Your task to perform on an android device: open a bookmark in the chrome app Image 0: 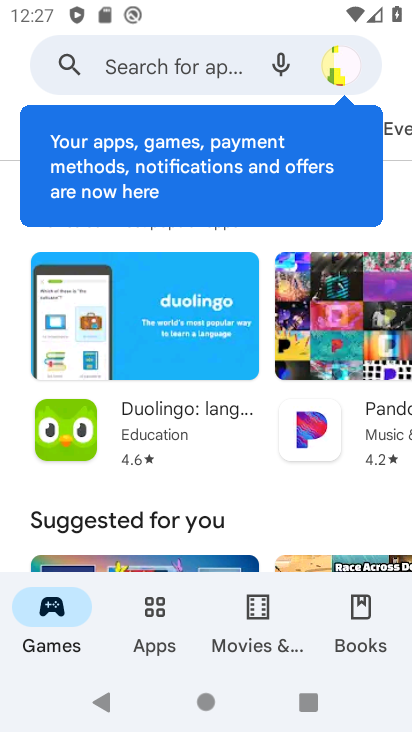
Step 0: press home button
Your task to perform on an android device: open a bookmark in the chrome app Image 1: 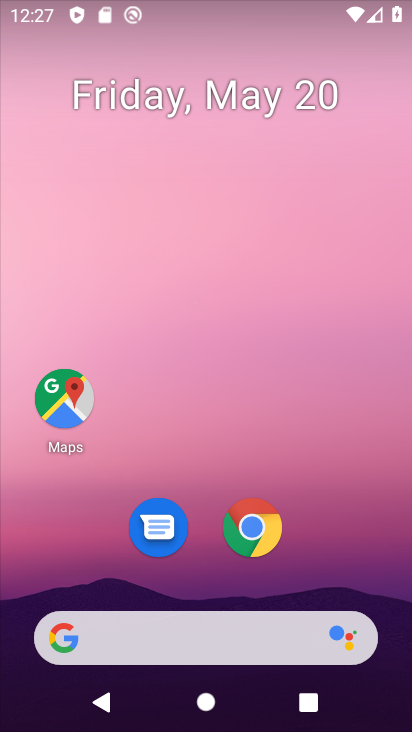
Step 1: click (247, 547)
Your task to perform on an android device: open a bookmark in the chrome app Image 2: 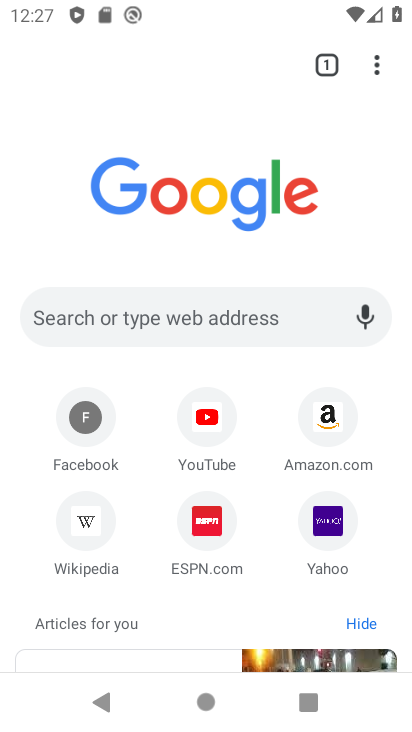
Step 2: click (379, 61)
Your task to perform on an android device: open a bookmark in the chrome app Image 3: 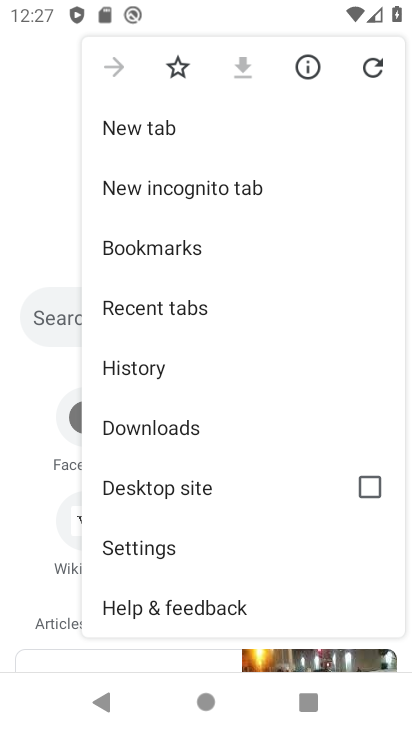
Step 3: click (143, 256)
Your task to perform on an android device: open a bookmark in the chrome app Image 4: 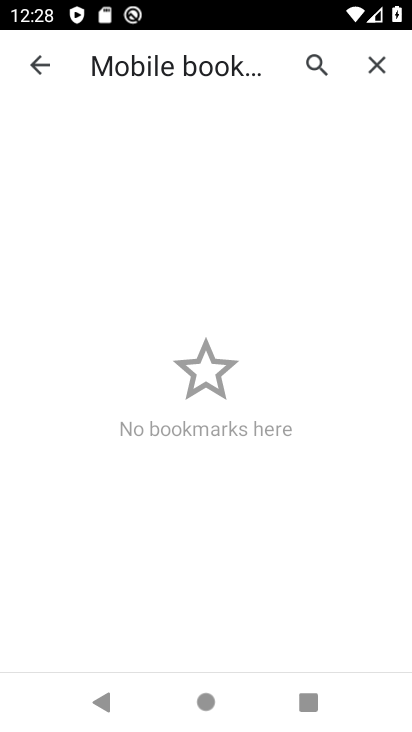
Step 4: task complete